Your task to perform on an android device: Turn on the flashlight Image 0: 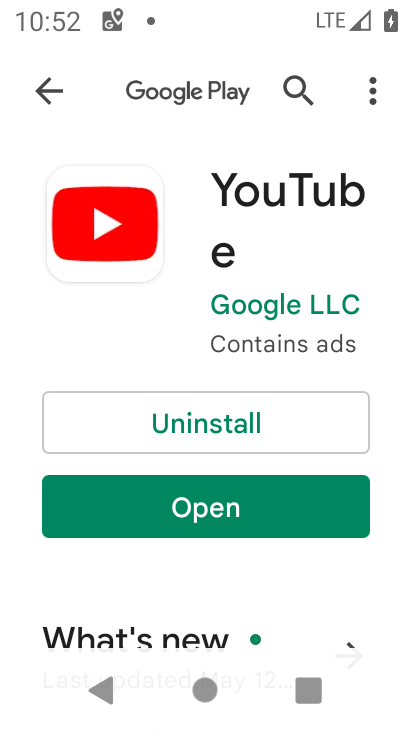
Step 0: press home button
Your task to perform on an android device: Turn on the flashlight Image 1: 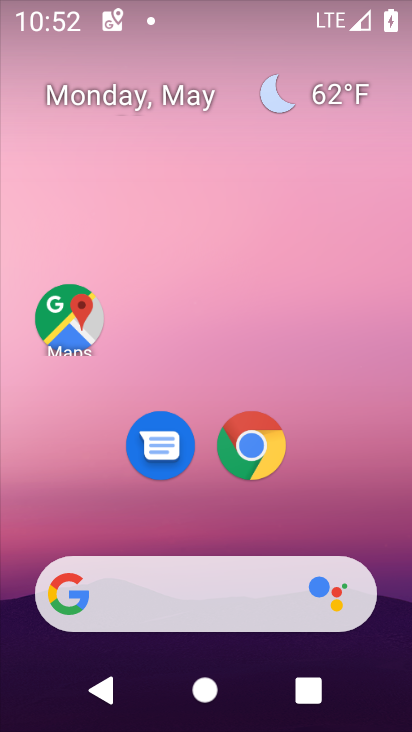
Step 1: drag from (376, 618) to (271, 28)
Your task to perform on an android device: Turn on the flashlight Image 2: 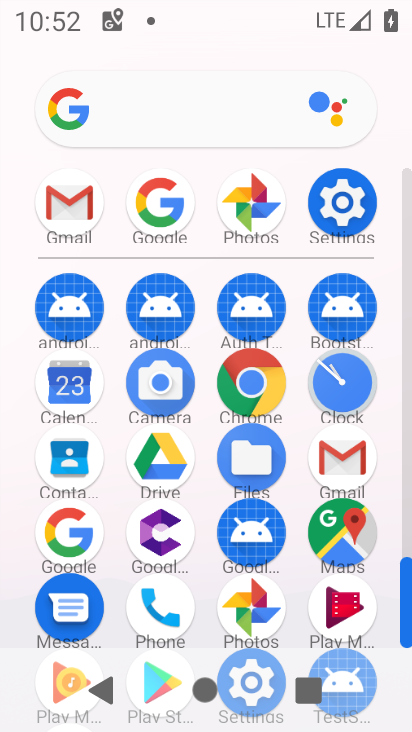
Step 2: click (362, 195)
Your task to perform on an android device: Turn on the flashlight Image 3: 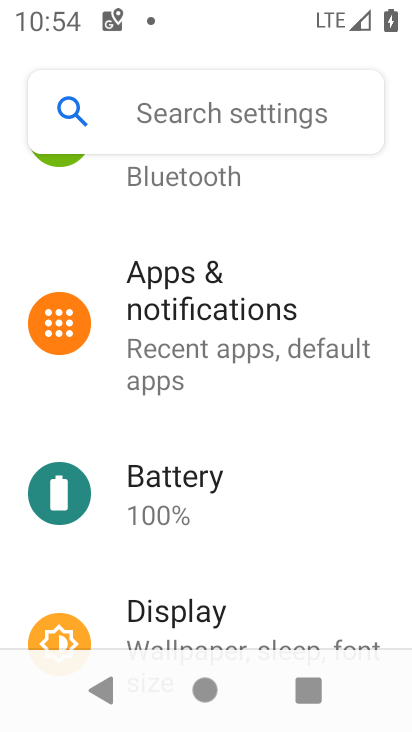
Step 3: task complete